Your task to perform on an android device: create a new album in the google photos Image 0: 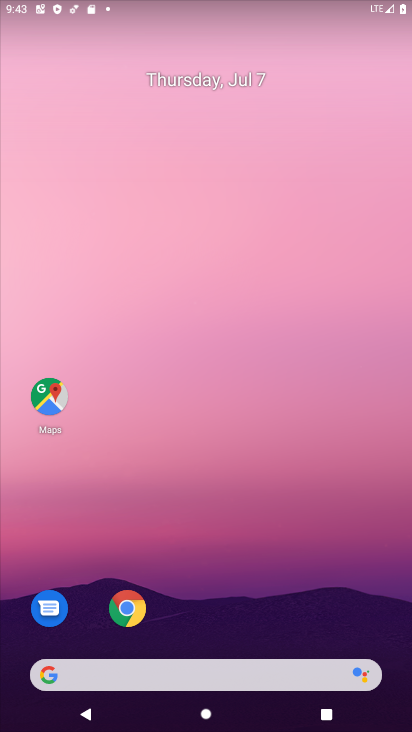
Step 0: drag from (218, 630) to (275, 53)
Your task to perform on an android device: create a new album in the google photos Image 1: 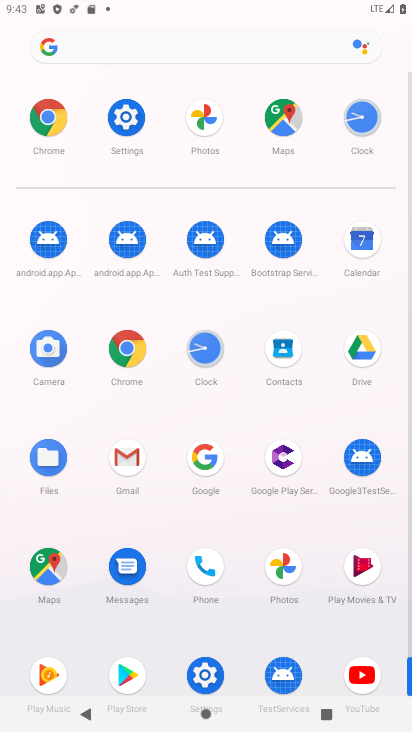
Step 1: click (200, 118)
Your task to perform on an android device: create a new album in the google photos Image 2: 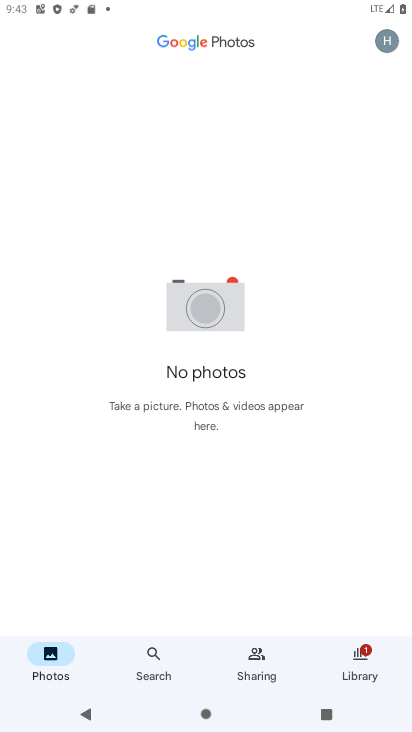
Step 2: click (363, 660)
Your task to perform on an android device: create a new album in the google photos Image 3: 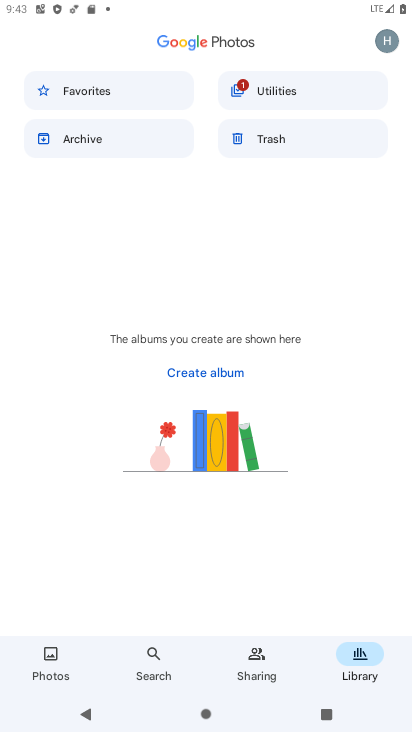
Step 3: click (200, 379)
Your task to perform on an android device: create a new album in the google photos Image 4: 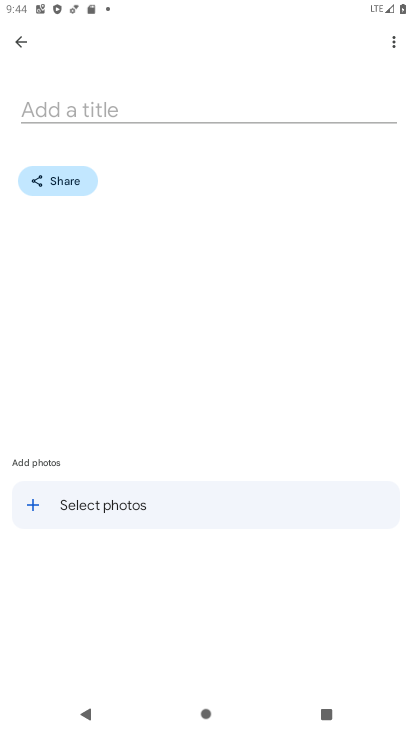
Step 4: click (225, 105)
Your task to perform on an android device: create a new album in the google photos Image 5: 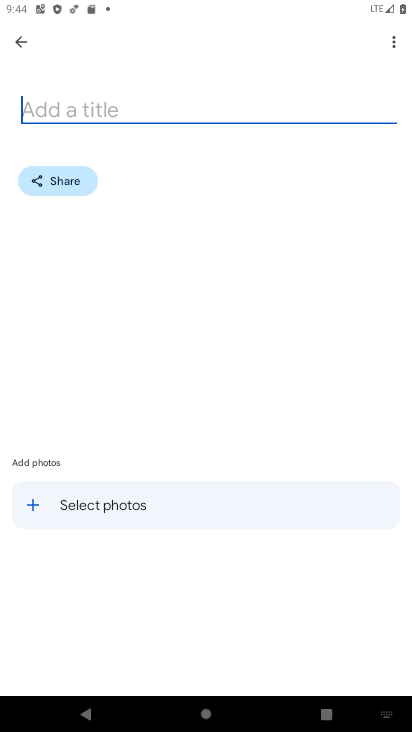
Step 5: type "hdfgh"
Your task to perform on an android device: create a new album in the google photos Image 6: 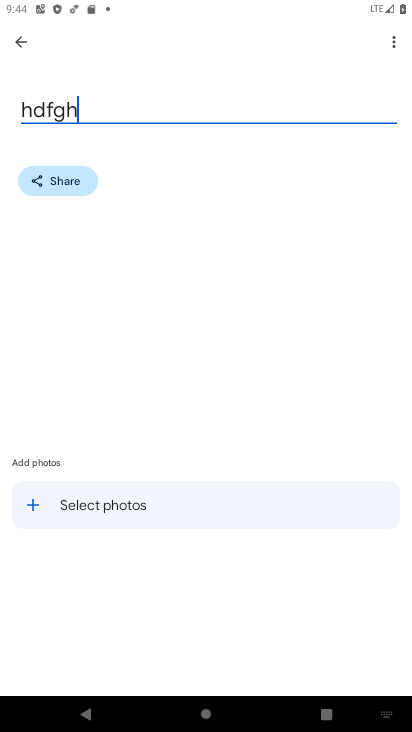
Step 6: click (28, 506)
Your task to perform on an android device: create a new album in the google photos Image 7: 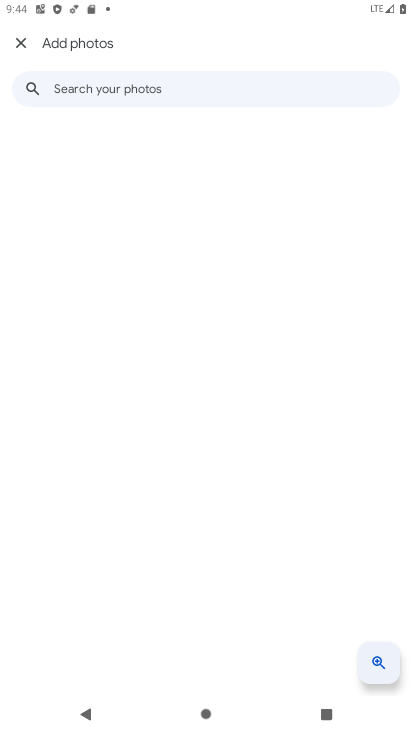
Step 7: task complete